Your task to perform on an android device: open sync settings in chrome Image 0: 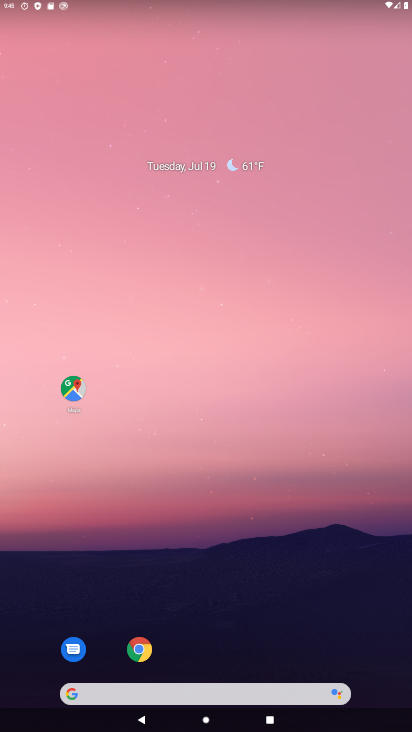
Step 0: click (132, 652)
Your task to perform on an android device: open sync settings in chrome Image 1: 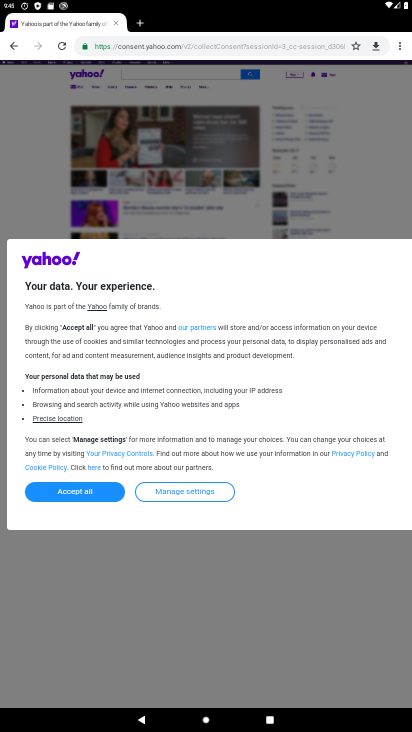
Step 1: click (401, 45)
Your task to perform on an android device: open sync settings in chrome Image 2: 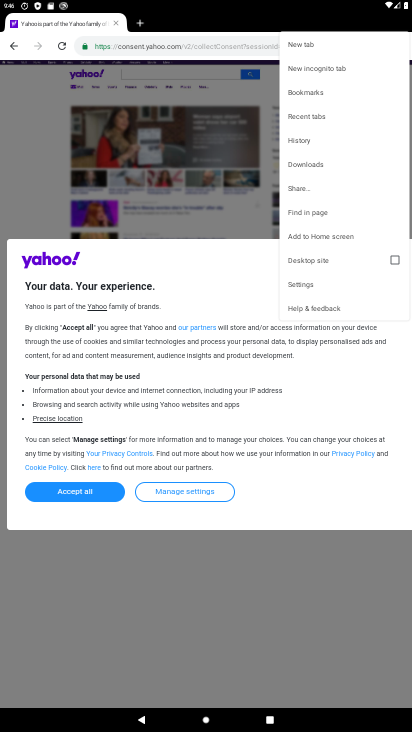
Step 2: click (329, 285)
Your task to perform on an android device: open sync settings in chrome Image 3: 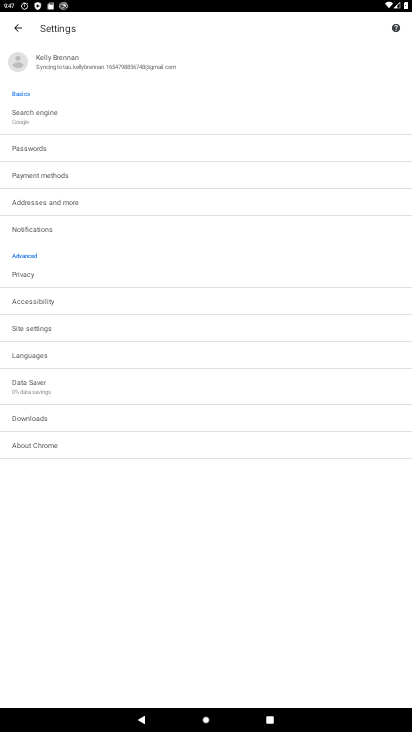
Step 3: click (83, 60)
Your task to perform on an android device: open sync settings in chrome Image 4: 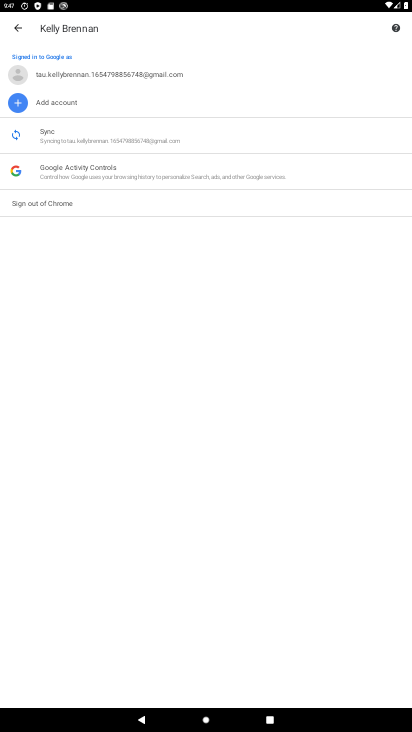
Step 4: click (92, 130)
Your task to perform on an android device: open sync settings in chrome Image 5: 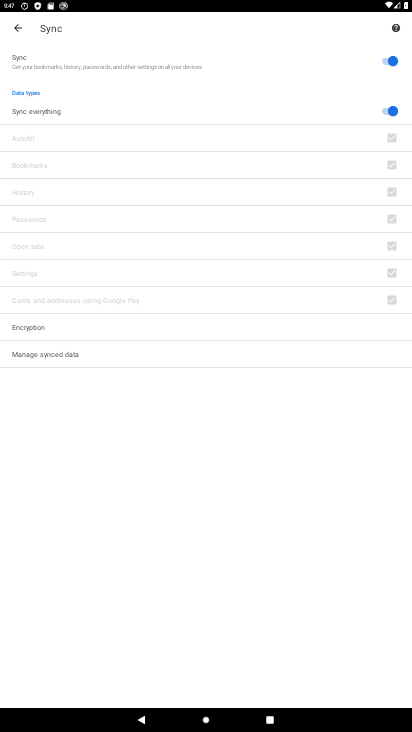
Step 5: task complete